Your task to perform on an android device: Open maps Image 0: 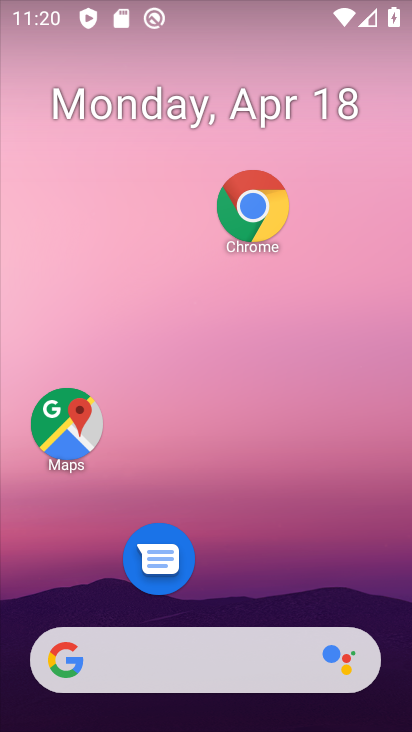
Step 0: drag from (322, 617) to (177, 75)
Your task to perform on an android device: Open maps Image 1: 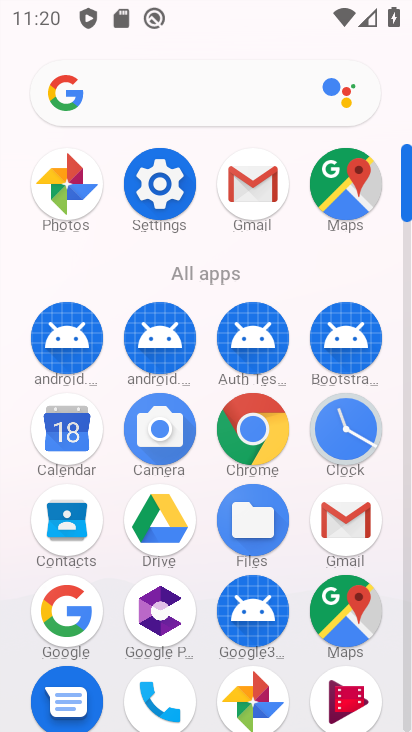
Step 1: drag from (312, 569) to (344, 207)
Your task to perform on an android device: Open maps Image 2: 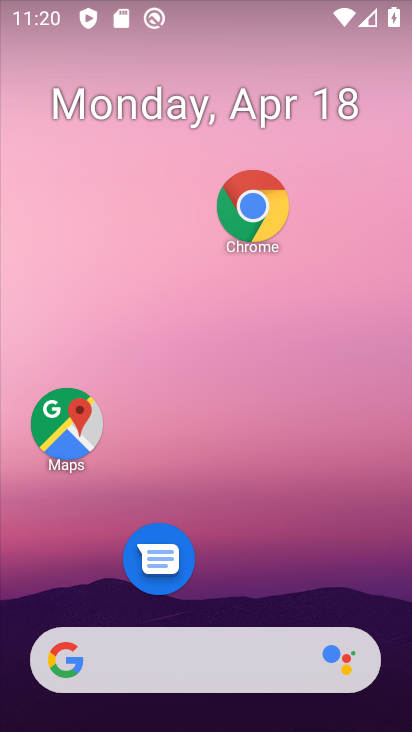
Step 2: drag from (282, 610) to (263, 206)
Your task to perform on an android device: Open maps Image 3: 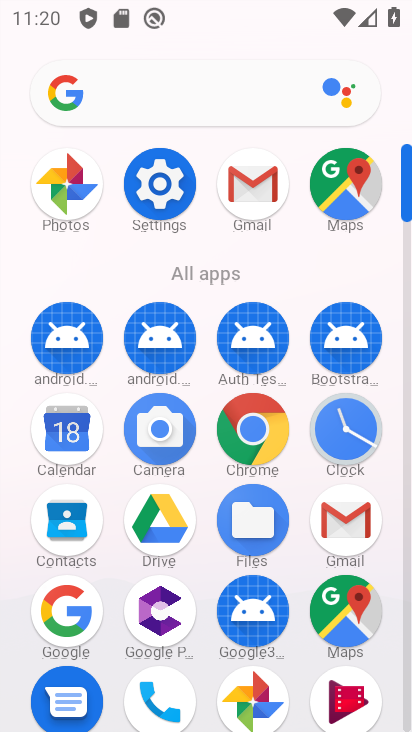
Step 3: drag from (296, 566) to (306, 269)
Your task to perform on an android device: Open maps Image 4: 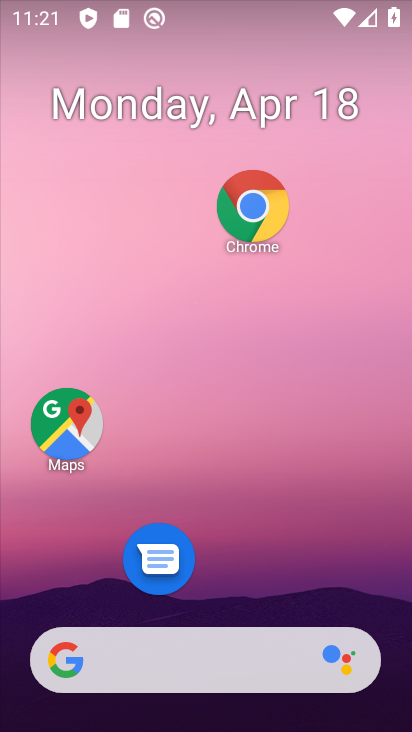
Step 4: drag from (330, 602) to (324, 142)
Your task to perform on an android device: Open maps Image 5: 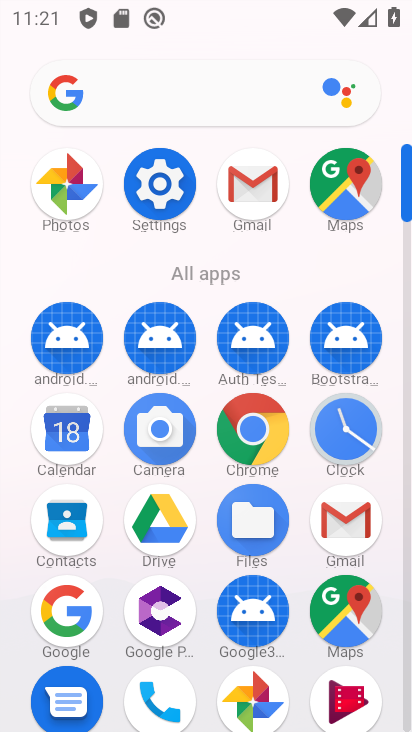
Step 5: click (355, 598)
Your task to perform on an android device: Open maps Image 6: 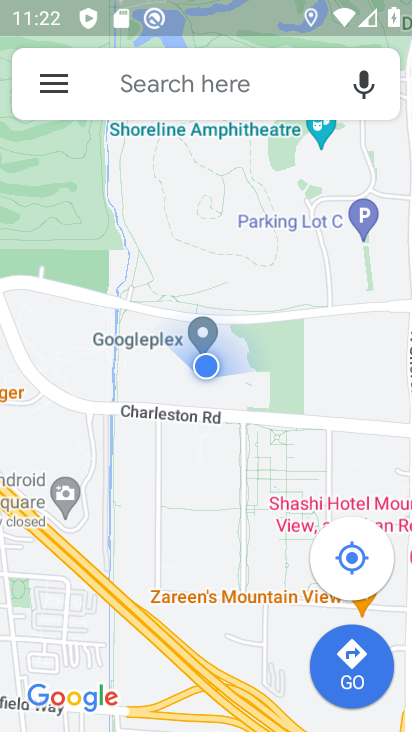
Step 6: task complete